Your task to perform on an android device: turn off location Image 0: 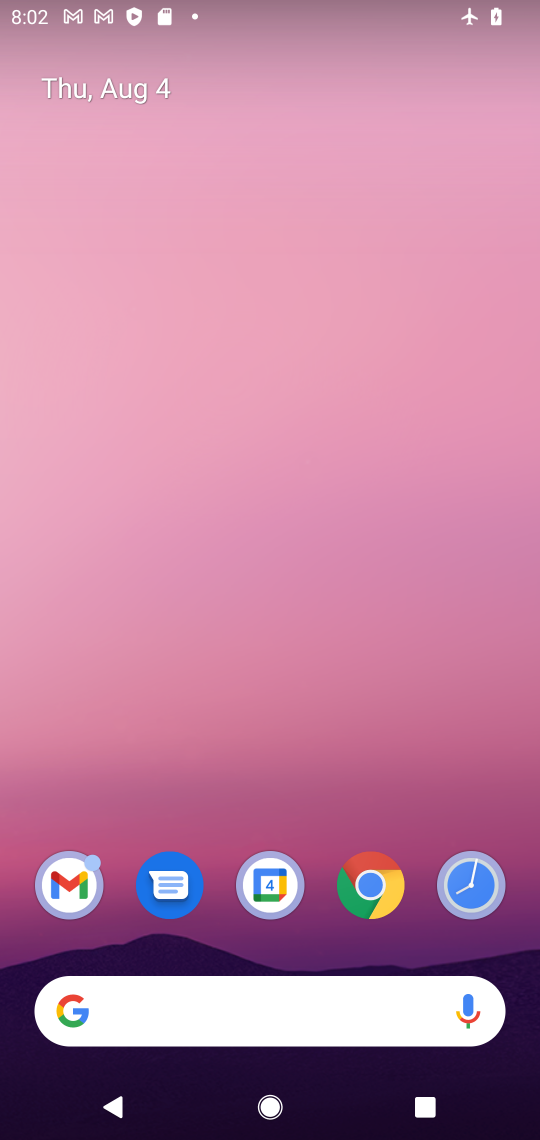
Step 0: press home button
Your task to perform on an android device: turn off location Image 1: 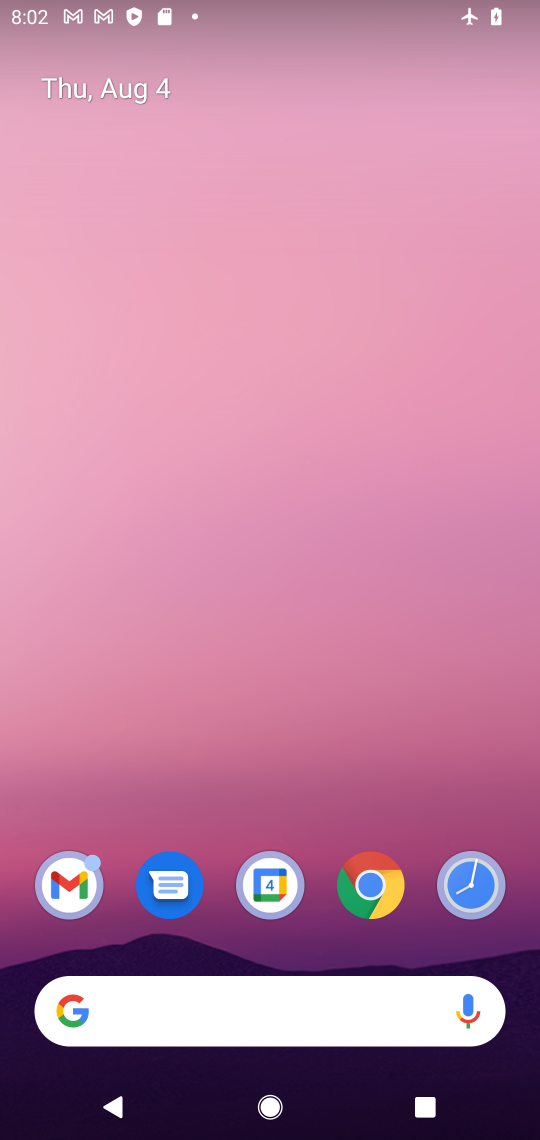
Step 1: drag from (318, 765) to (408, 8)
Your task to perform on an android device: turn off location Image 2: 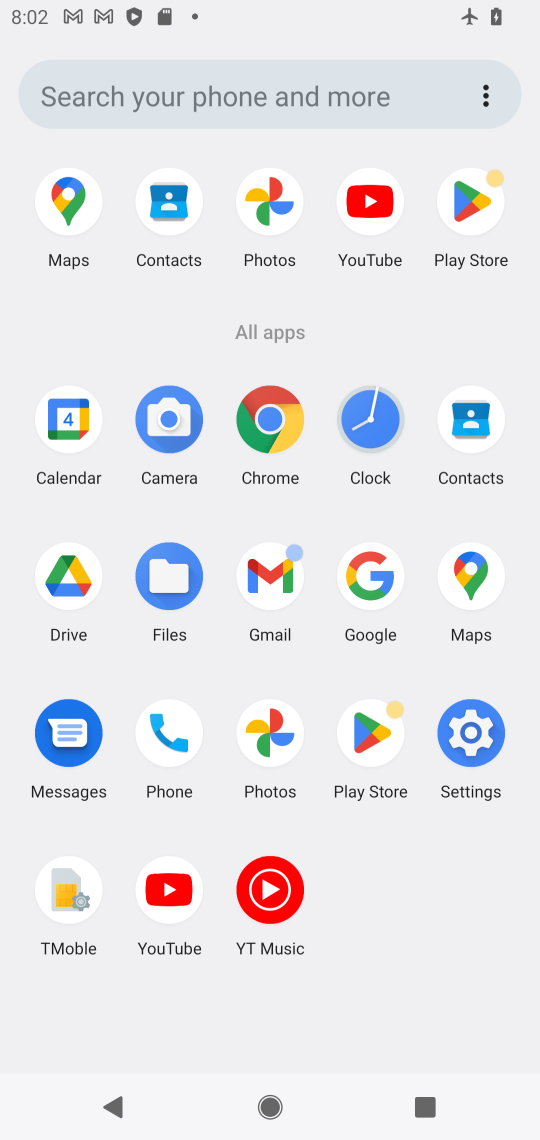
Step 2: click (461, 759)
Your task to perform on an android device: turn off location Image 3: 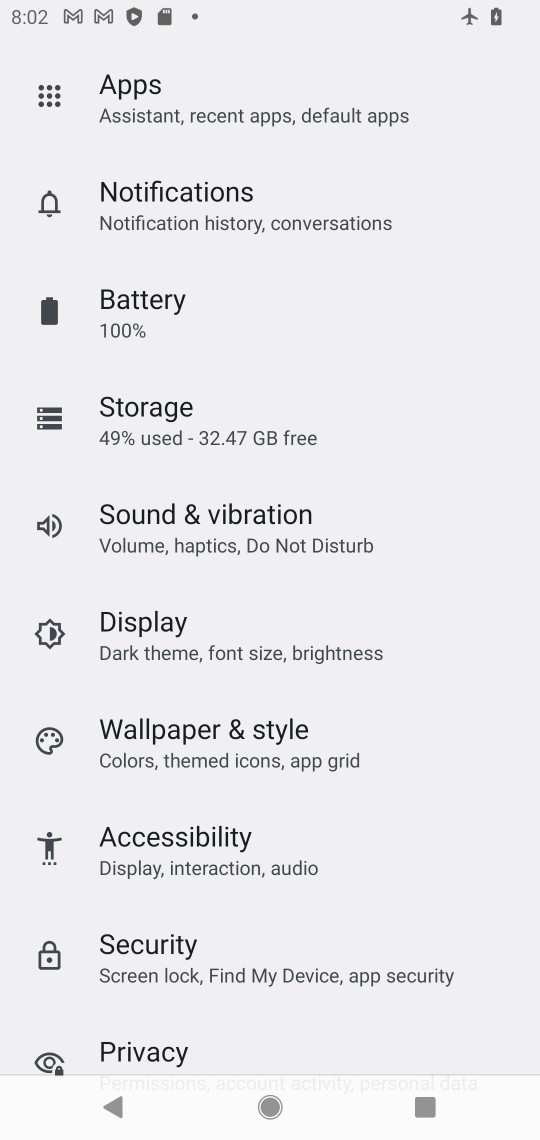
Step 3: drag from (329, 936) to (352, 222)
Your task to perform on an android device: turn off location Image 4: 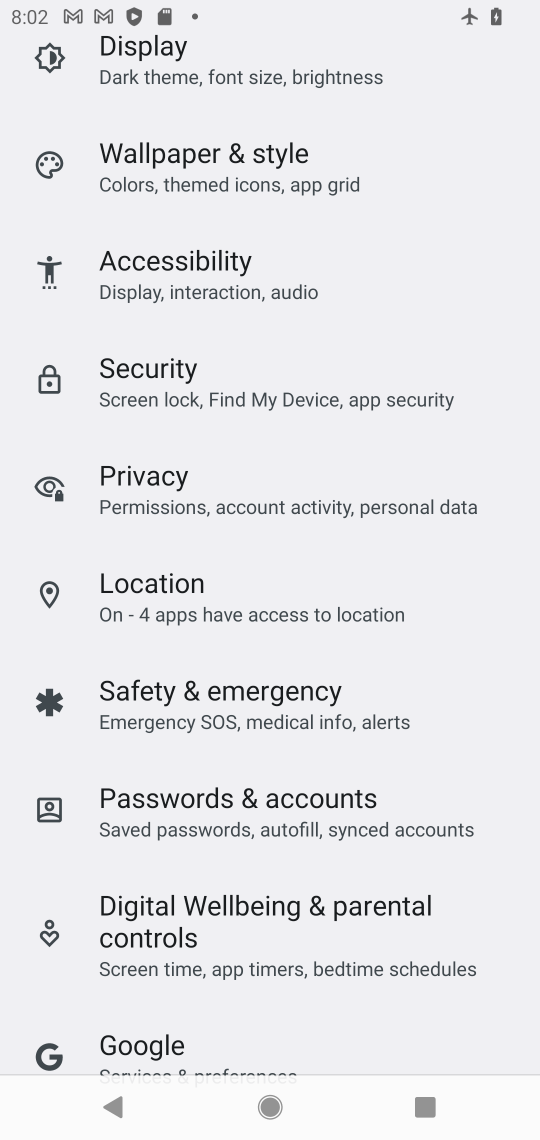
Step 4: click (135, 569)
Your task to perform on an android device: turn off location Image 5: 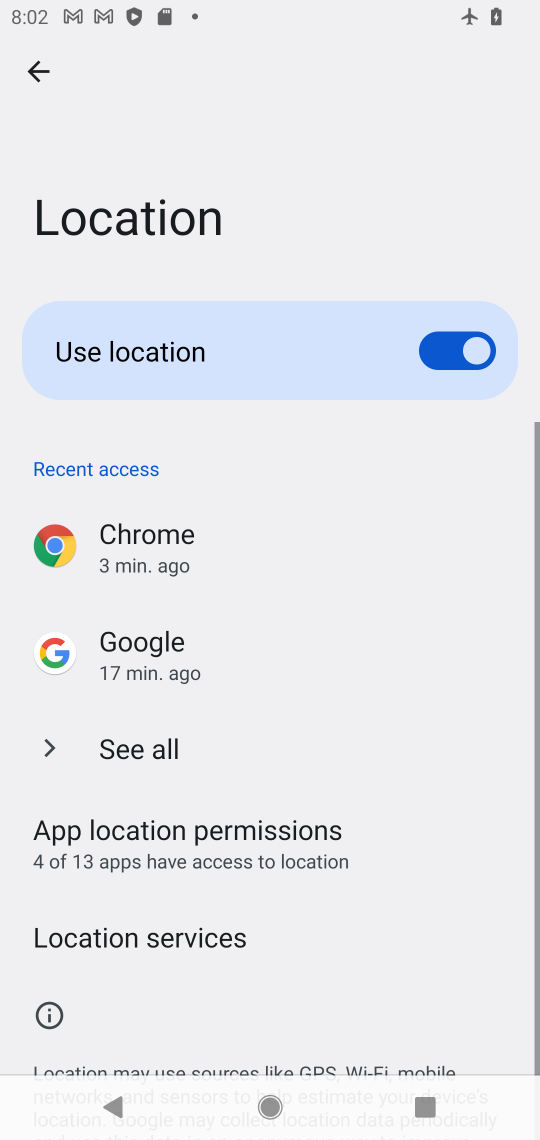
Step 5: click (234, 364)
Your task to perform on an android device: turn off location Image 6: 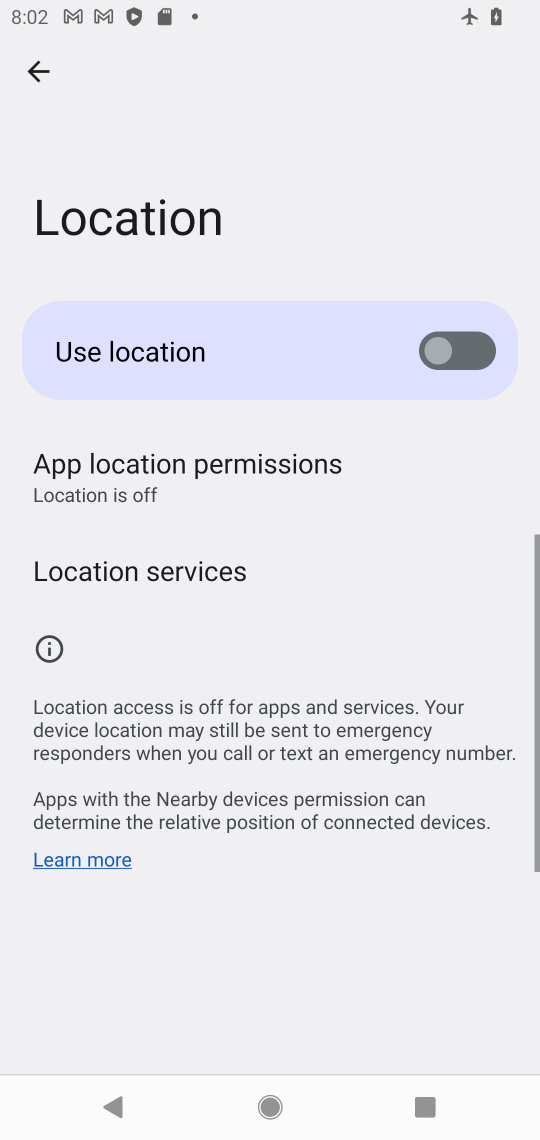
Step 6: task complete